Your task to perform on an android device: Open wifi settings Image 0: 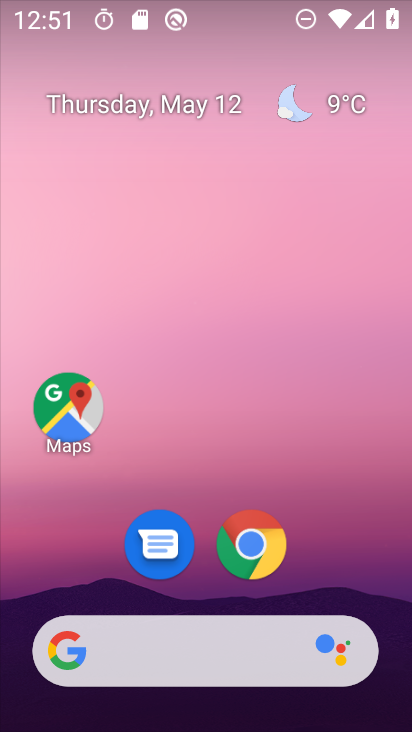
Step 0: drag from (212, 720) to (178, 52)
Your task to perform on an android device: Open wifi settings Image 1: 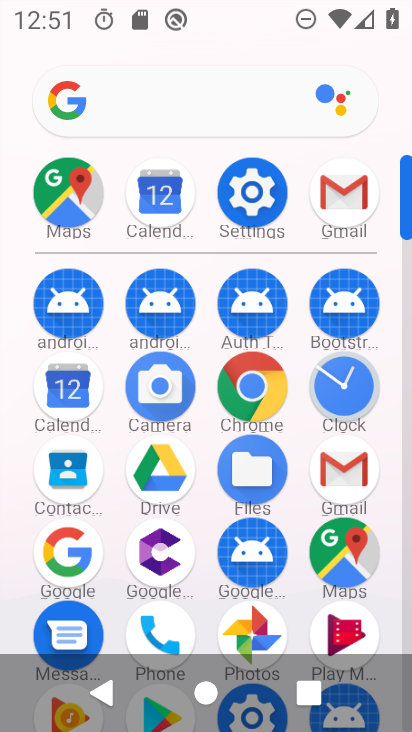
Step 1: click (241, 192)
Your task to perform on an android device: Open wifi settings Image 2: 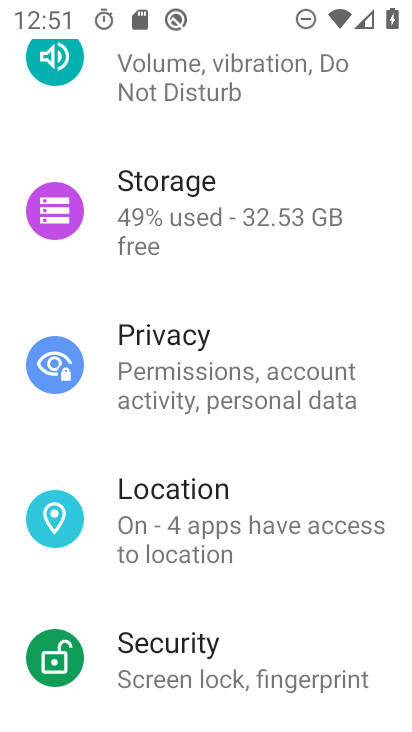
Step 2: drag from (334, 148) to (344, 591)
Your task to perform on an android device: Open wifi settings Image 3: 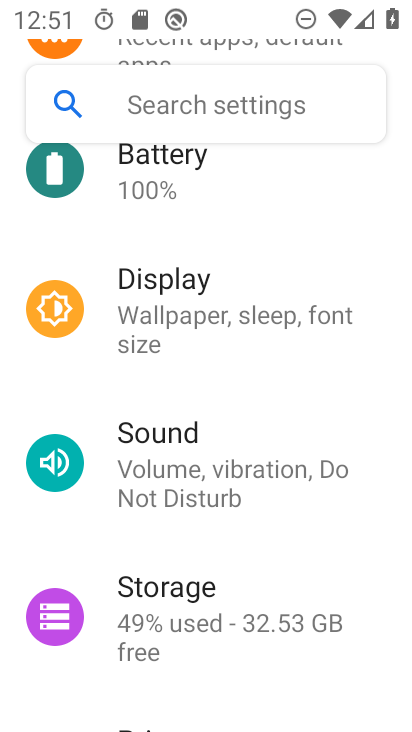
Step 3: drag from (300, 185) to (300, 599)
Your task to perform on an android device: Open wifi settings Image 4: 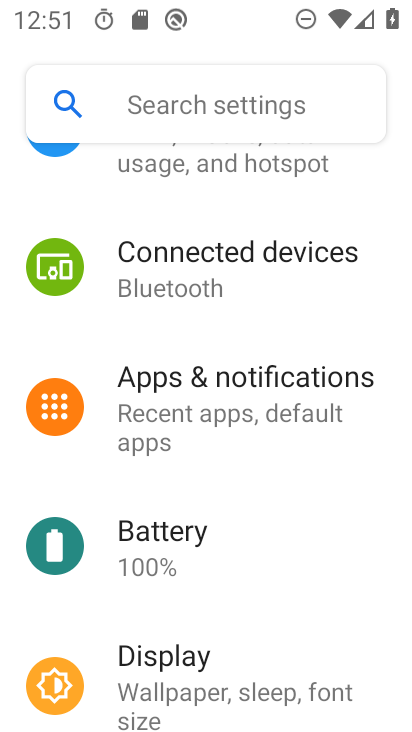
Step 4: drag from (239, 205) to (236, 648)
Your task to perform on an android device: Open wifi settings Image 5: 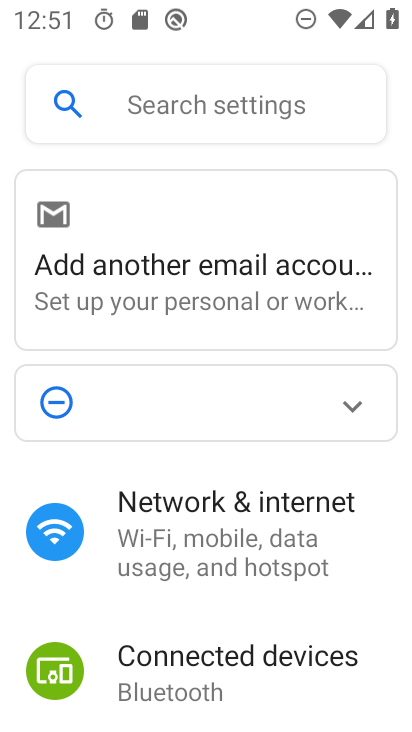
Step 5: click (181, 525)
Your task to perform on an android device: Open wifi settings Image 6: 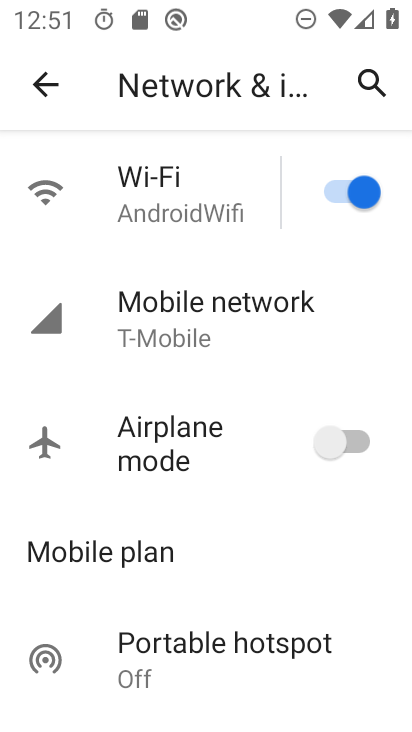
Step 6: click (134, 197)
Your task to perform on an android device: Open wifi settings Image 7: 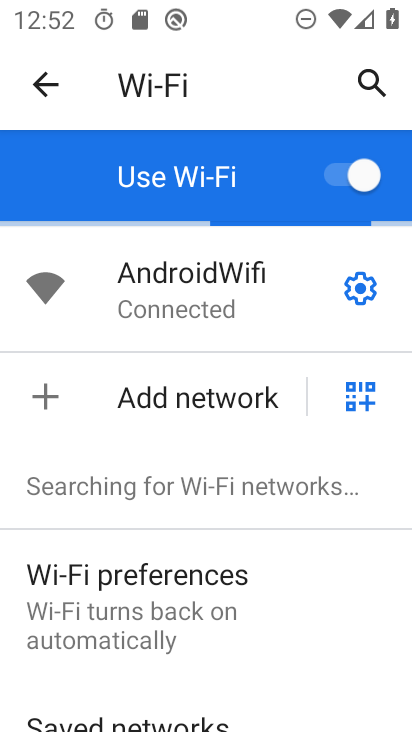
Step 7: task complete